Your task to perform on an android device: Go to Yahoo.com Image 0: 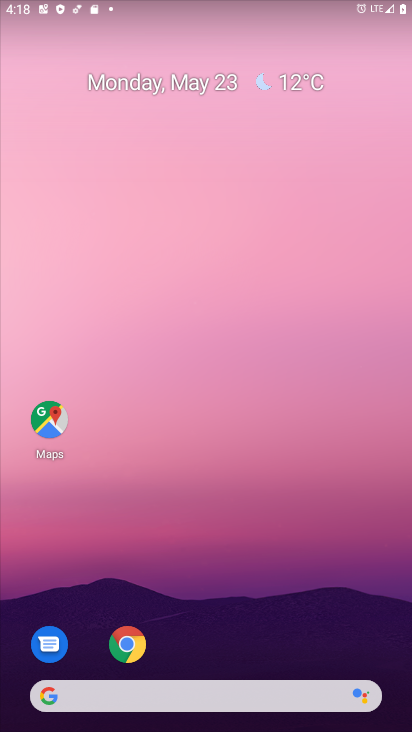
Step 0: click (145, 648)
Your task to perform on an android device: Go to Yahoo.com Image 1: 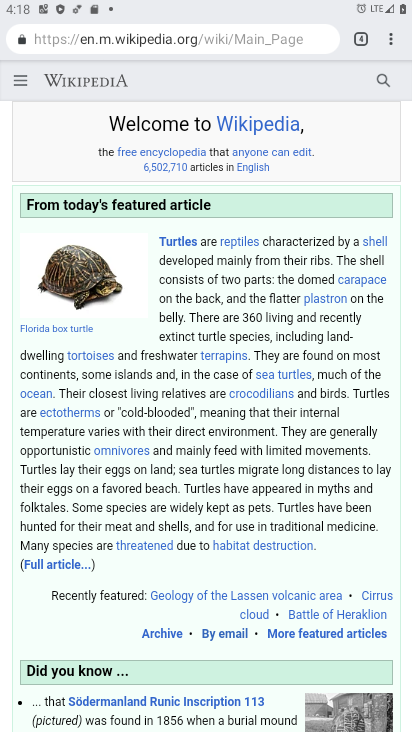
Step 1: click (175, 33)
Your task to perform on an android device: Go to Yahoo.com Image 2: 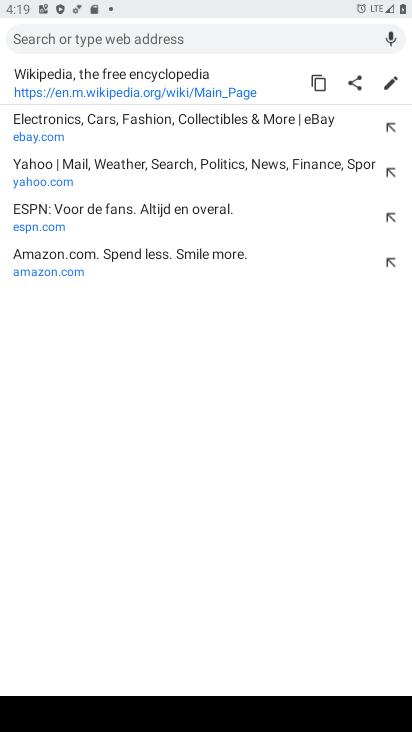
Step 2: type "yahoo.com"
Your task to perform on an android device: Go to Yahoo.com Image 3: 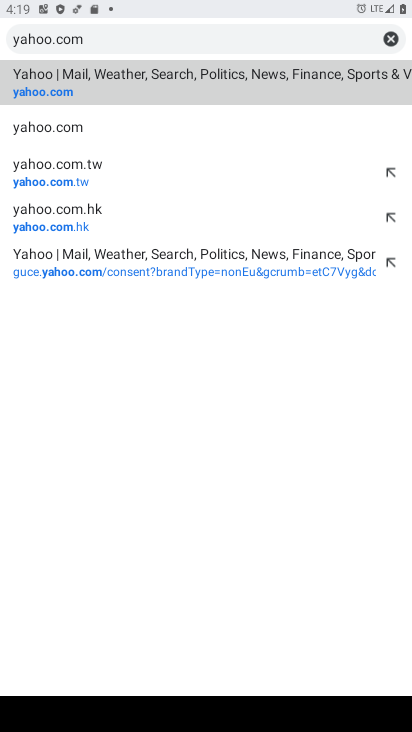
Step 3: click (59, 83)
Your task to perform on an android device: Go to Yahoo.com Image 4: 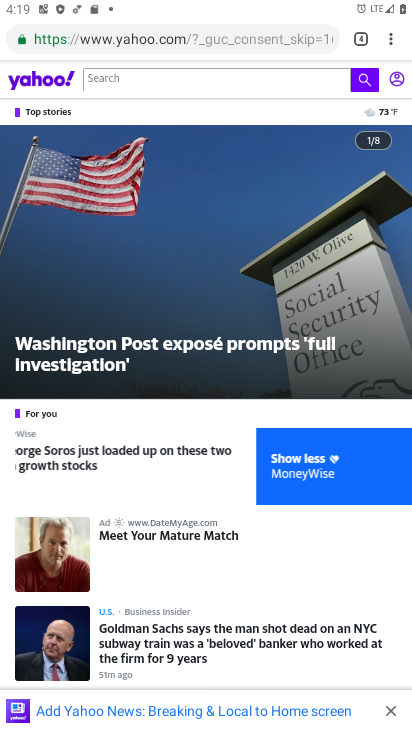
Step 4: task complete